Your task to perform on an android device: What's on my calendar today? Image 0: 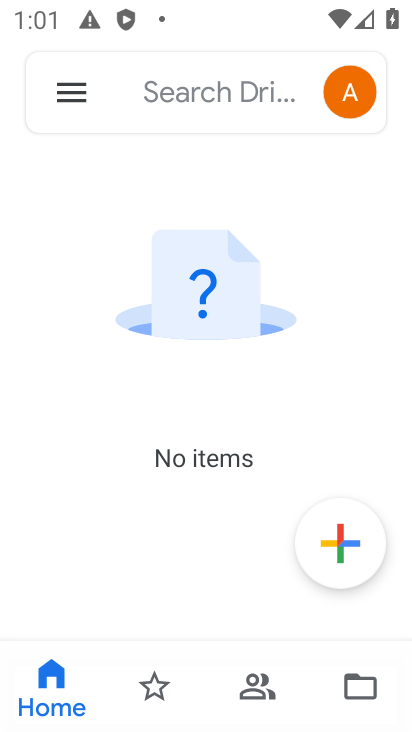
Step 0: press home button
Your task to perform on an android device: What's on my calendar today? Image 1: 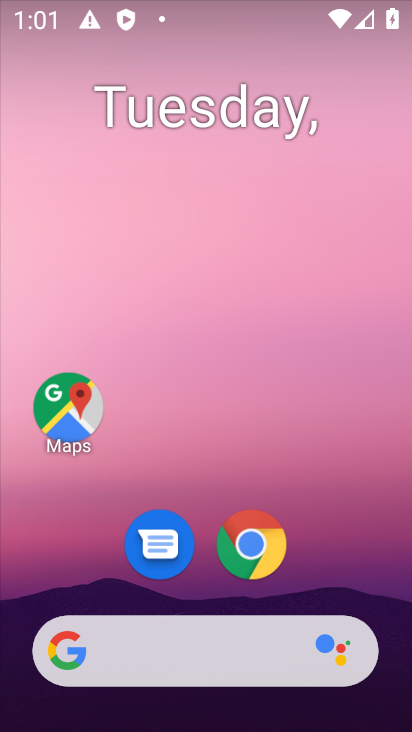
Step 1: drag from (323, 521) to (353, 68)
Your task to perform on an android device: What's on my calendar today? Image 2: 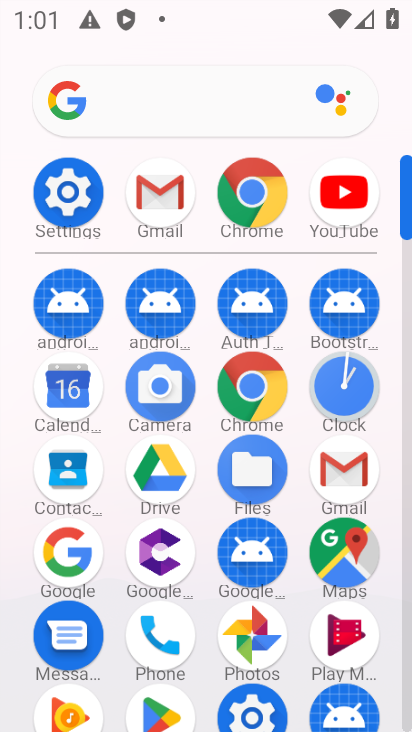
Step 2: click (70, 378)
Your task to perform on an android device: What's on my calendar today? Image 3: 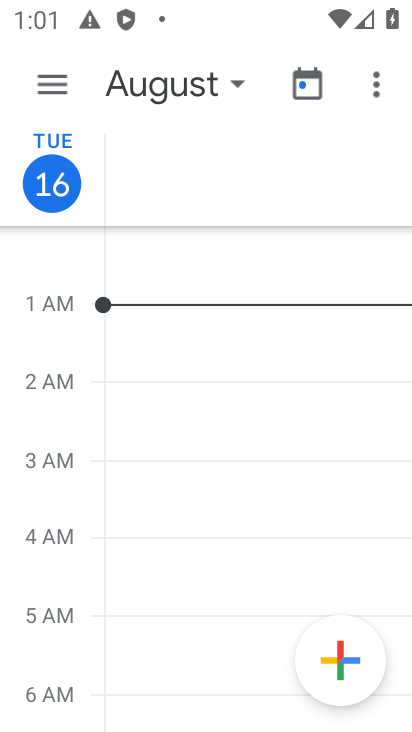
Step 3: task complete